Your task to perform on an android device: What is the news today? Image 0: 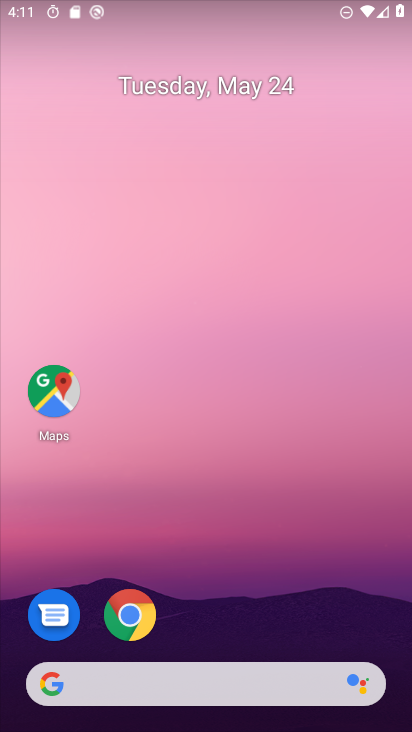
Step 0: drag from (255, 622) to (314, 132)
Your task to perform on an android device: What is the news today? Image 1: 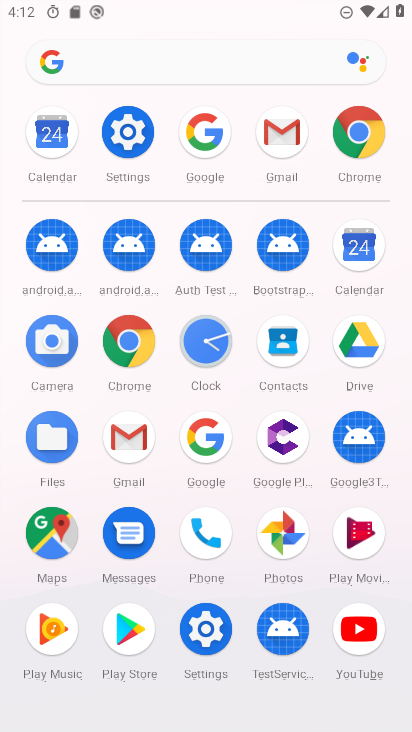
Step 1: click (202, 458)
Your task to perform on an android device: What is the news today? Image 2: 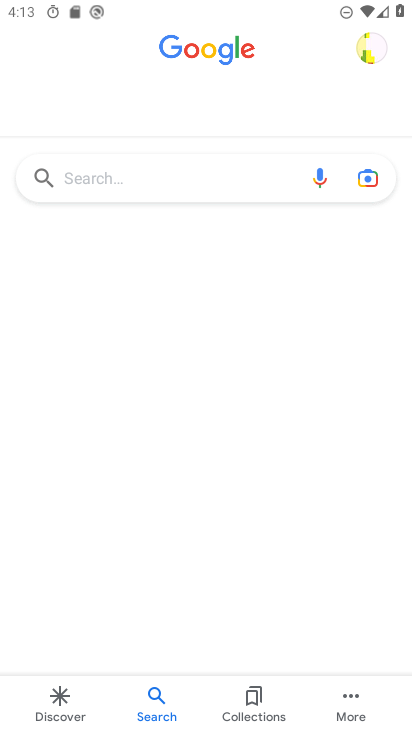
Step 2: click (143, 174)
Your task to perform on an android device: What is the news today? Image 3: 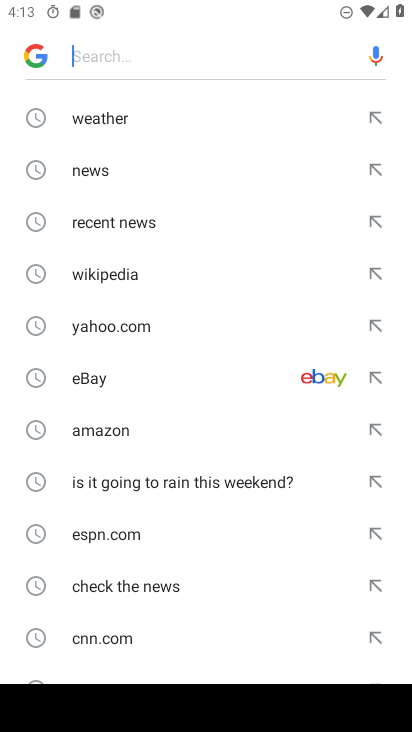
Step 3: click (134, 164)
Your task to perform on an android device: What is the news today? Image 4: 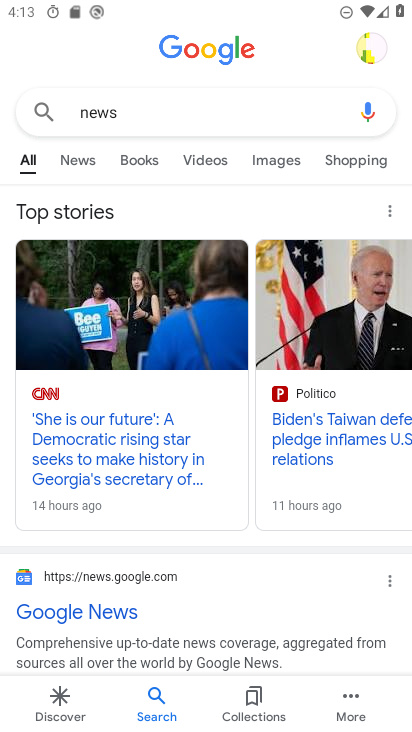
Step 4: click (87, 169)
Your task to perform on an android device: What is the news today? Image 5: 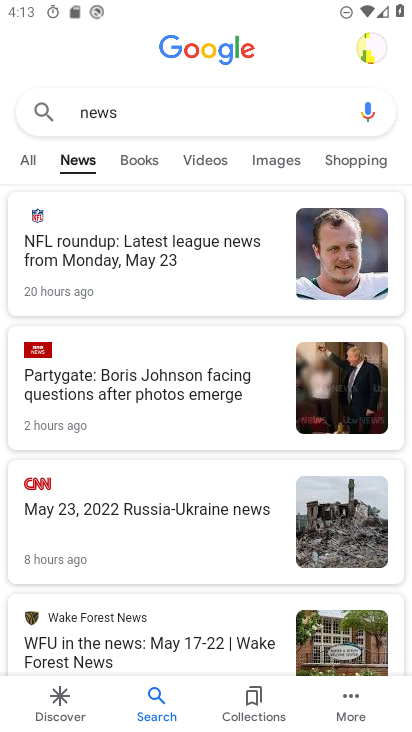
Step 5: task complete